Your task to perform on an android device: Go to sound settings Image 0: 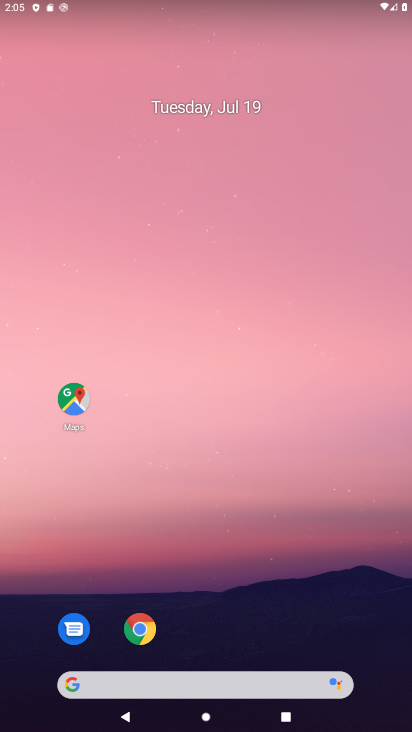
Step 0: drag from (199, 662) to (239, 221)
Your task to perform on an android device: Go to sound settings Image 1: 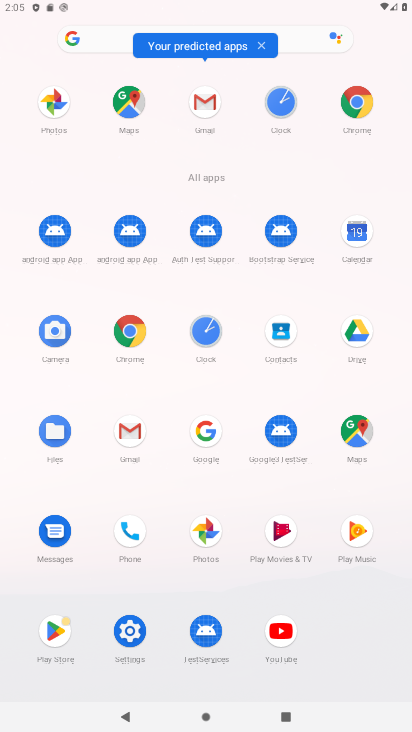
Step 1: click (141, 636)
Your task to perform on an android device: Go to sound settings Image 2: 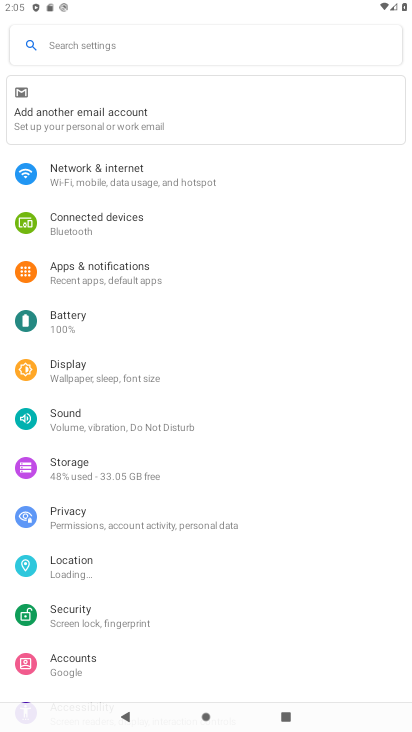
Step 2: click (106, 415)
Your task to perform on an android device: Go to sound settings Image 3: 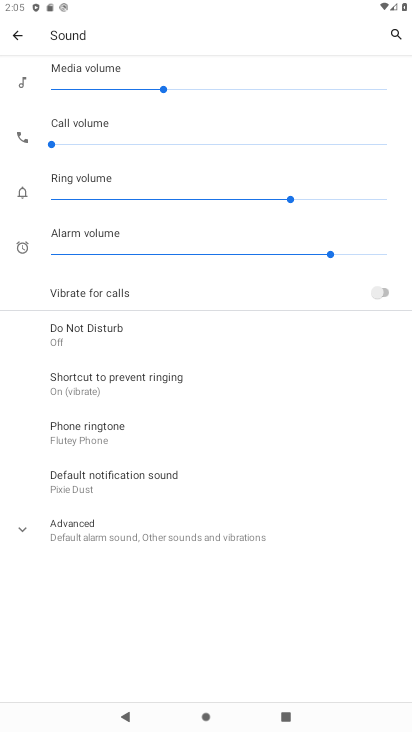
Step 3: task complete